Your task to perform on an android device: Open display settings Image 0: 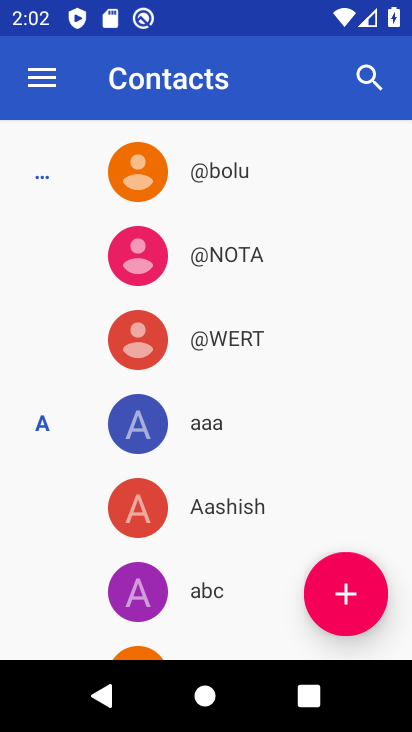
Step 0: press back button
Your task to perform on an android device: Open display settings Image 1: 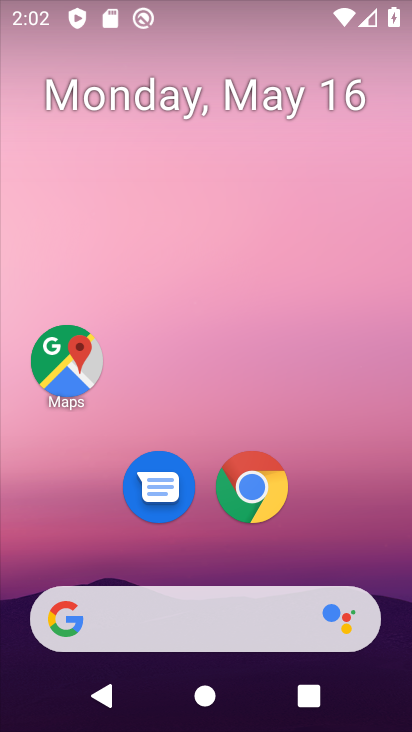
Step 1: drag from (336, 510) to (273, 49)
Your task to perform on an android device: Open display settings Image 2: 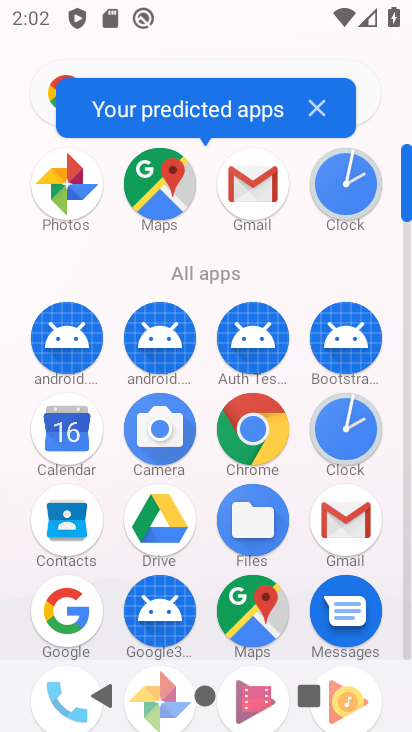
Step 2: drag from (301, 565) to (308, 275)
Your task to perform on an android device: Open display settings Image 3: 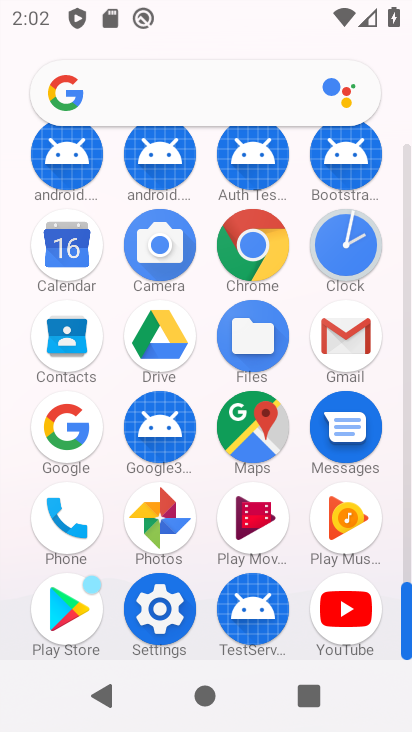
Step 3: click (158, 608)
Your task to perform on an android device: Open display settings Image 4: 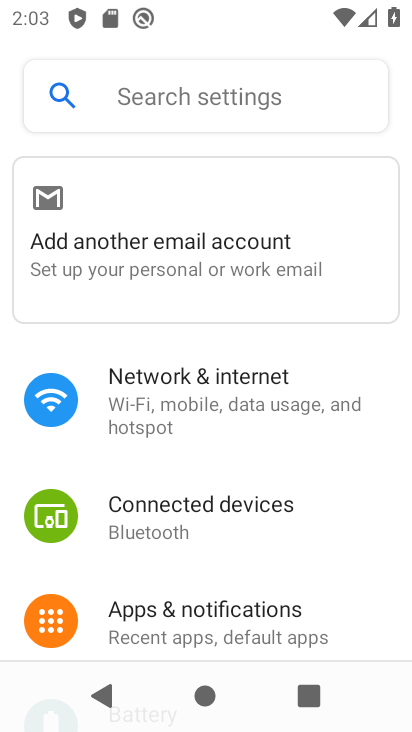
Step 4: drag from (172, 561) to (220, 433)
Your task to perform on an android device: Open display settings Image 5: 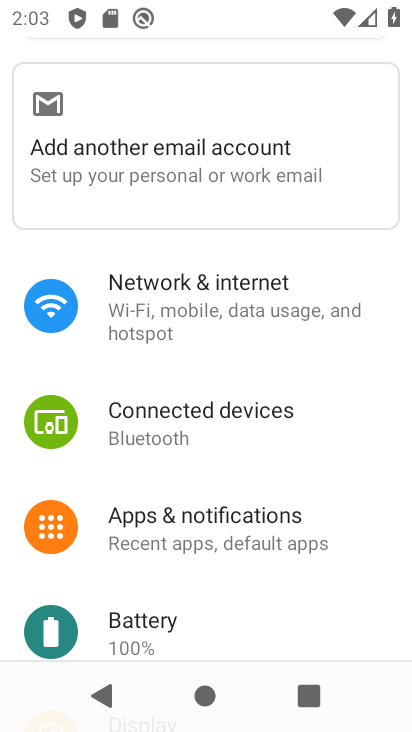
Step 5: drag from (182, 586) to (255, 462)
Your task to perform on an android device: Open display settings Image 6: 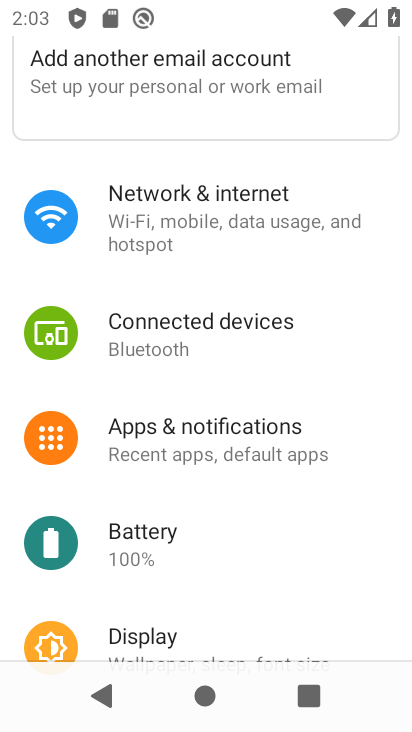
Step 6: drag from (191, 573) to (298, 452)
Your task to perform on an android device: Open display settings Image 7: 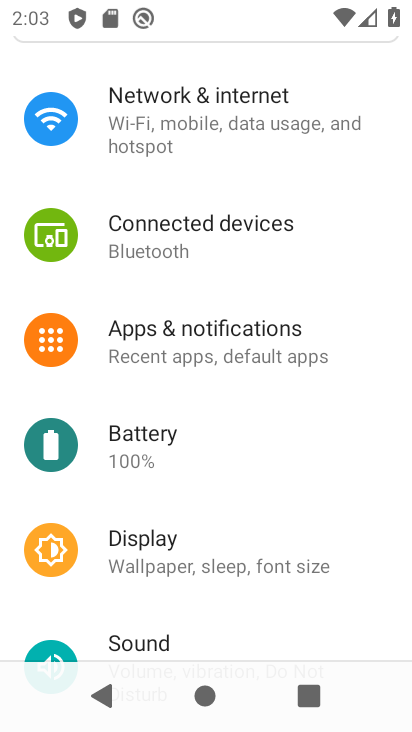
Step 7: click (153, 549)
Your task to perform on an android device: Open display settings Image 8: 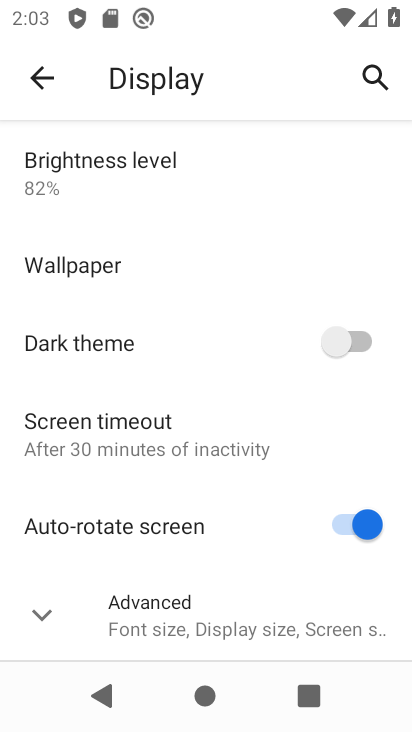
Step 8: task complete